Your task to perform on an android device: Go to wifi settings Image 0: 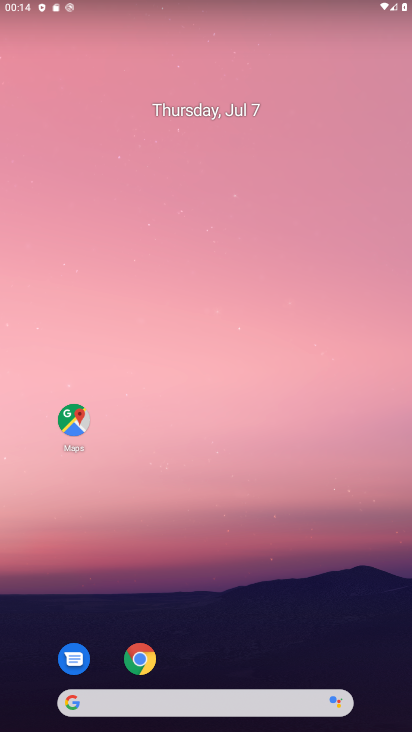
Step 0: drag from (220, 721) to (147, 245)
Your task to perform on an android device: Go to wifi settings Image 1: 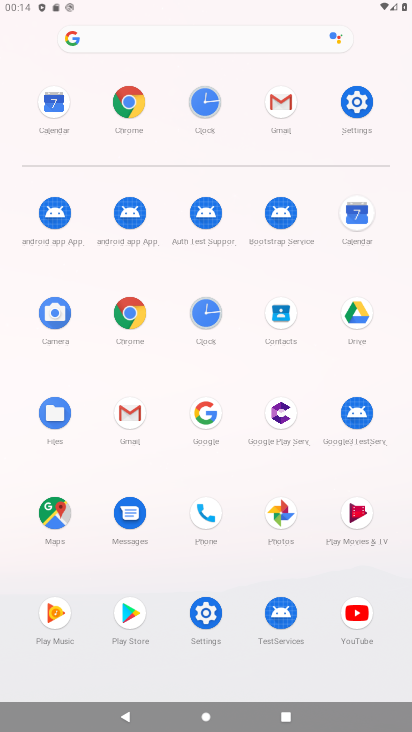
Step 1: click (353, 99)
Your task to perform on an android device: Go to wifi settings Image 2: 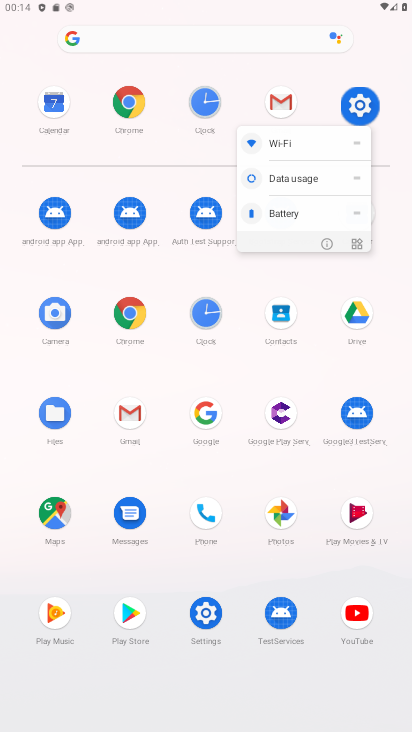
Step 2: click (361, 105)
Your task to perform on an android device: Go to wifi settings Image 3: 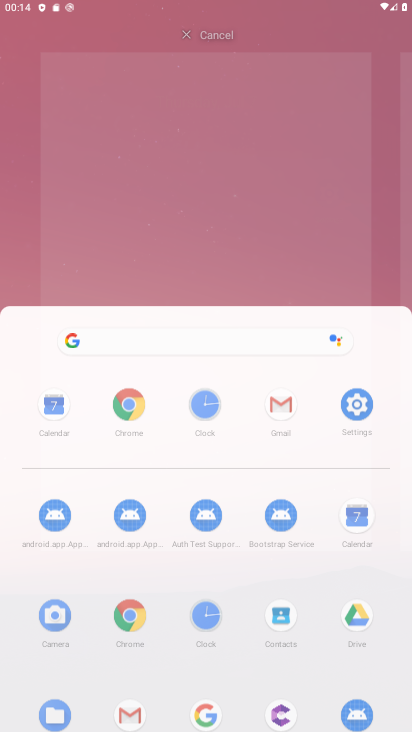
Step 3: click (362, 106)
Your task to perform on an android device: Go to wifi settings Image 4: 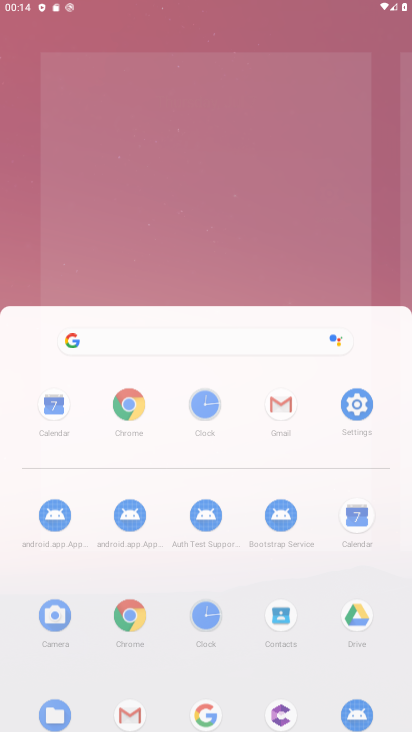
Step 4: click (362, 106)
Your task to perform on an android device: Go to wifi settings Image 5: 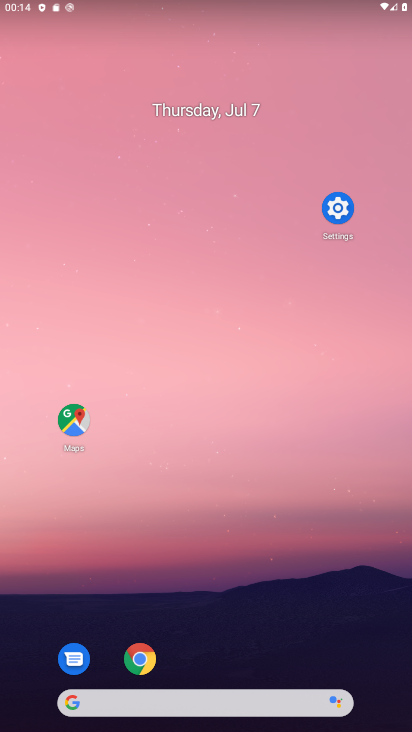
Step 5: click (335, 216)
Your task to perform on an android device: Go to wifi settings Image 6: 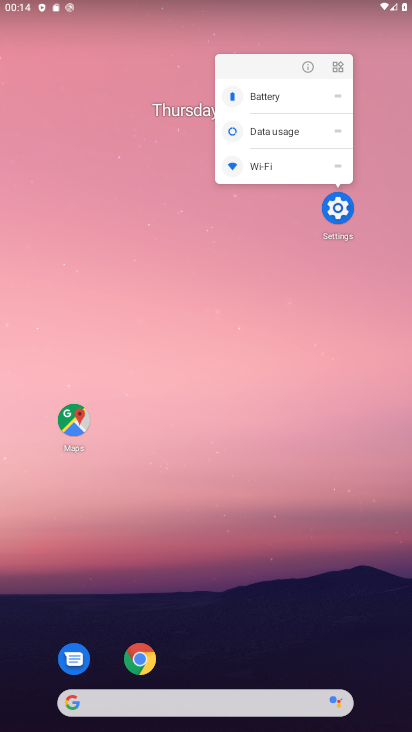
Step 6: click (335, 216)
Your task to perform on an android device: Go to wifi settings Image 7: 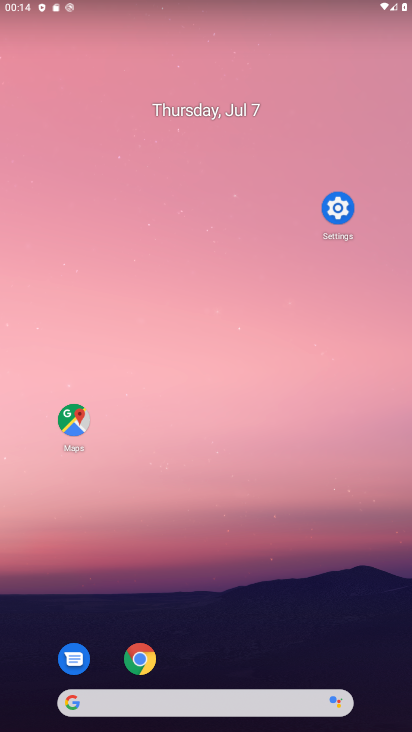
Step 7: click (334, 214)
Your task to perform on an android device: Go to wifi settings Image 8: 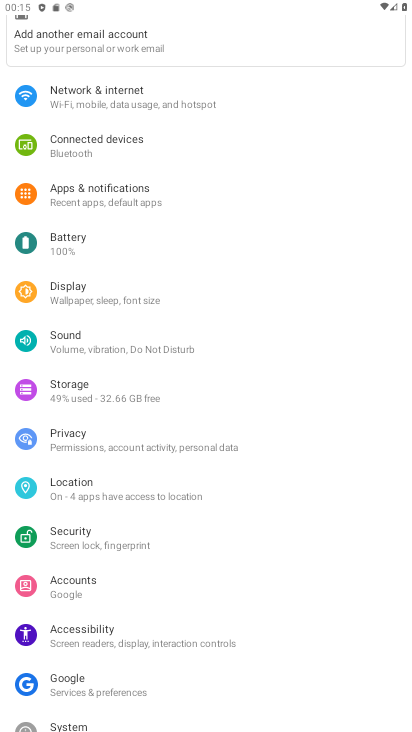
Step 8: click (100, 99)
Your task to perform on an android device: Go to wifi settings Image 9: 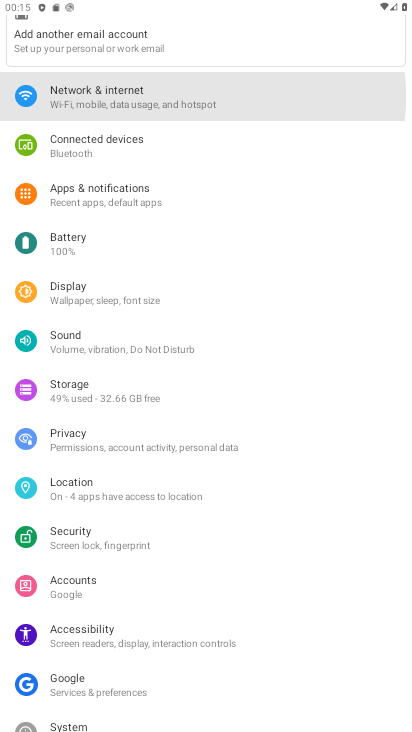
Step 9: click (103, 96)
Your task to perform on an android device: Go to wifi settings Image 10: 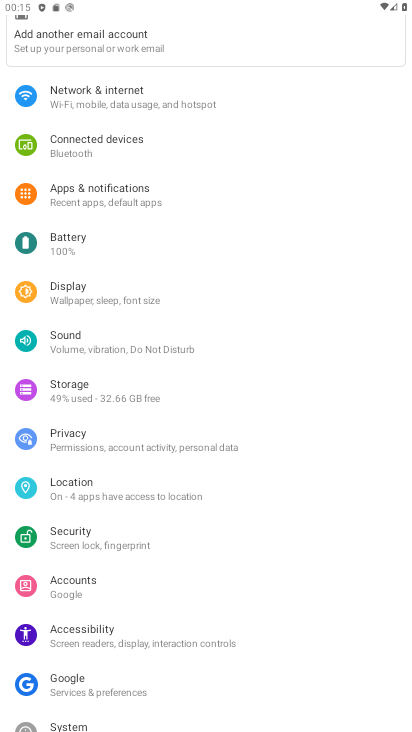
Step 10: click (104, 101)
Your task to perform on an android device: Go to wifi settings Image 11: 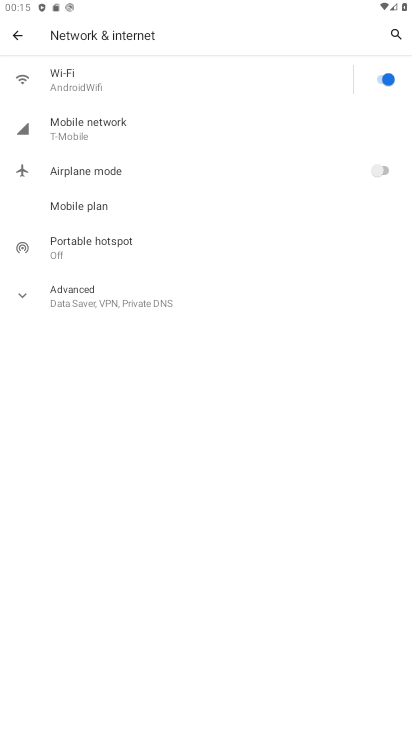
Step 11: task complete